Your task to perform on an android device: delete browsing data in the chrome app Image 0: 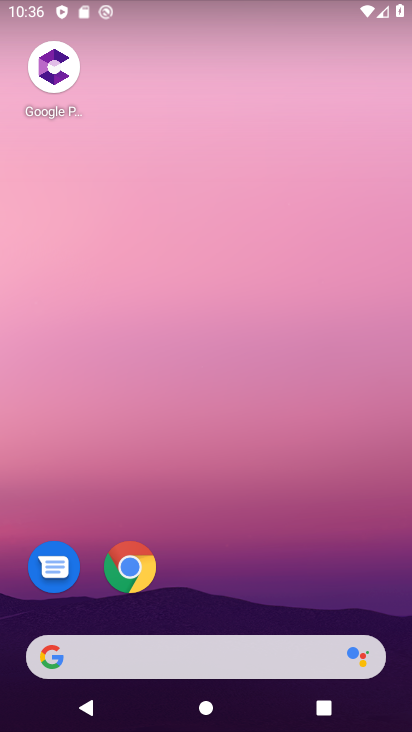
Step 0: click (158, 573)
Your task to perform on an android device: delete browsing data in the chrome app Image 1: 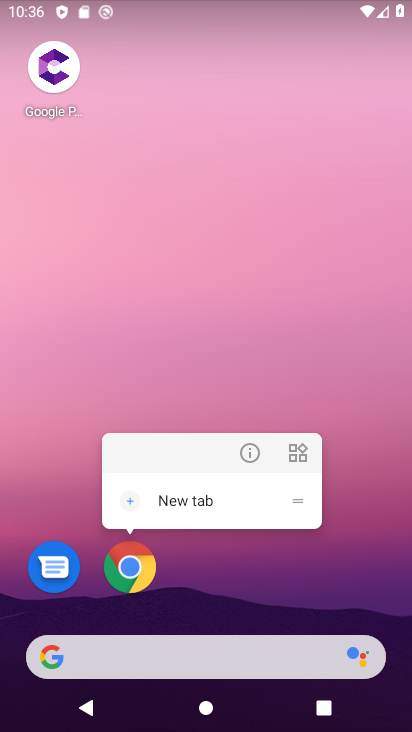
Step 1: click (246, 452)
Your task to perform on an android device: delete browsing data in the chrome app Image 2: 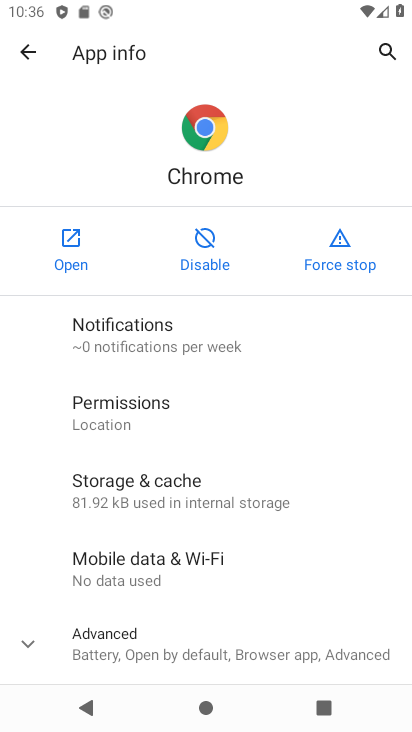
Step 2: click (57, 246)
Your task to perform on an android device: delete browsing data in the chrome app Image 3: 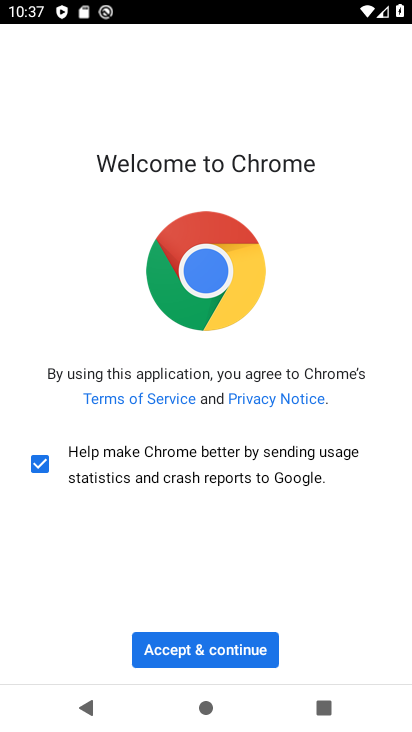
Step 3: click (237, 655)
Your task to perform on an android device: delete browsing data in the chrome app Image 4: 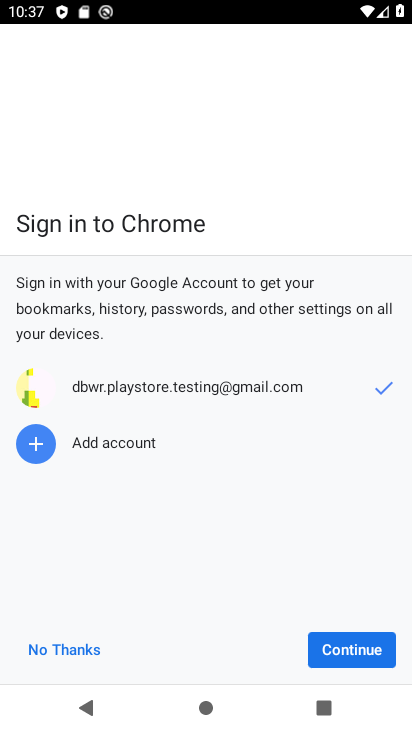
Step 4: click (51, 649)
Your task to perform on an android device: delete browsing data in the chrome app Image 5: 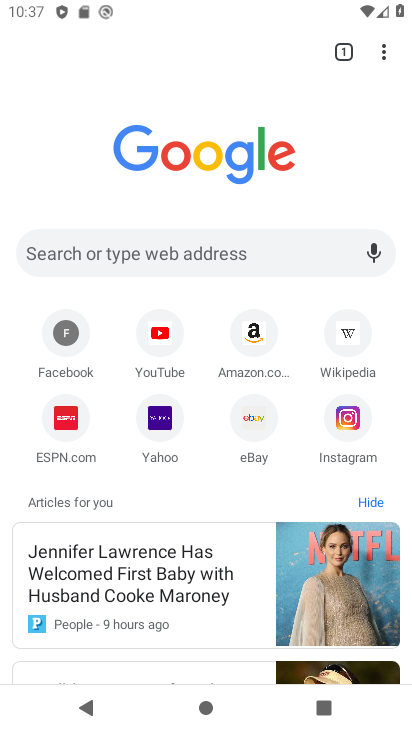
Step 5: click (384, 58)
Your task to perform on an android device: delete browsing data in the chrome app Image 6: 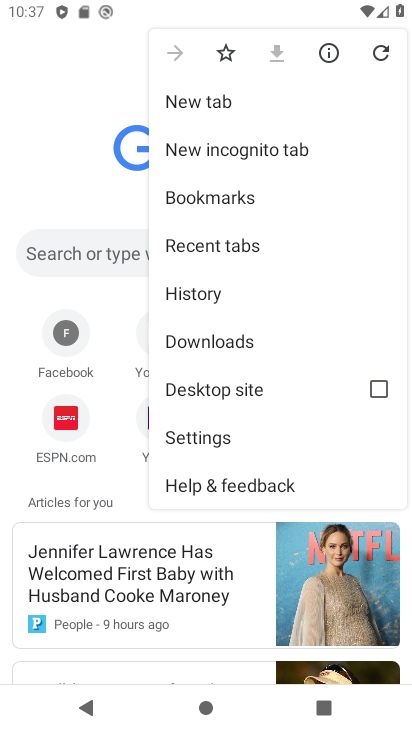
Step 6: click (263, 300)
Your task to perform on an android device: delete browsing data in the chrome app Image 7: 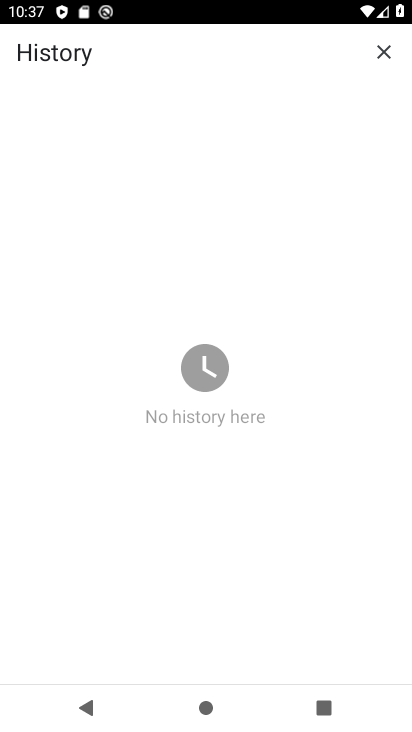
Step 7: task complete